Your task to perform on an android device: What's on the menu at Starbucks? Image 0: 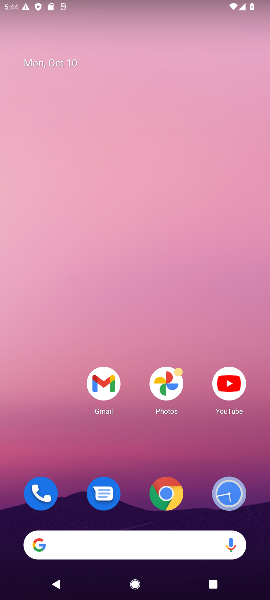
Step 0: drag from (122, 430) to (92, 96)
Your task to perform on an android device: What's on the menu at Starbucks? Image 1: 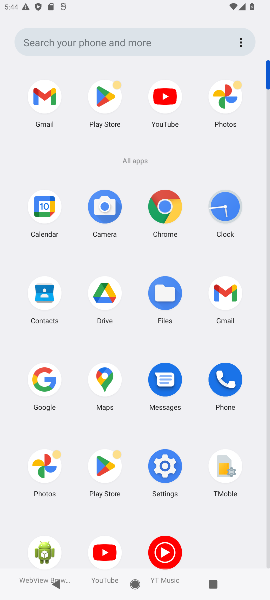
Step 1: click (104, 50)
Your task to perform on an android device: What's on the menu at Starbucks? Image 2: 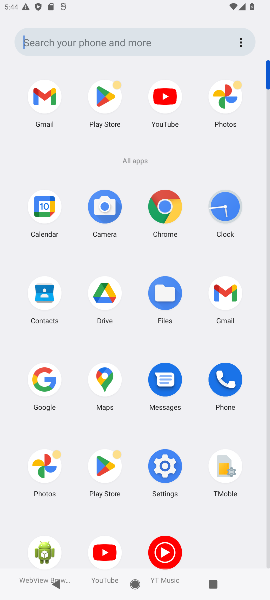
Step 2: click (104, 50)
Your task to perform on an android device: What's on the menu at Starbucks? Image 3: 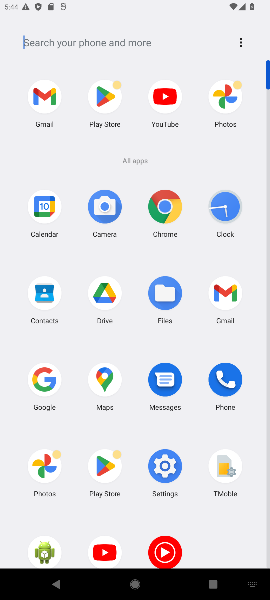
Step 3: type "What's on the menu at Starbucks?"
Your task to perform on an android device: What's on the menu at Starbucks? Image 4: 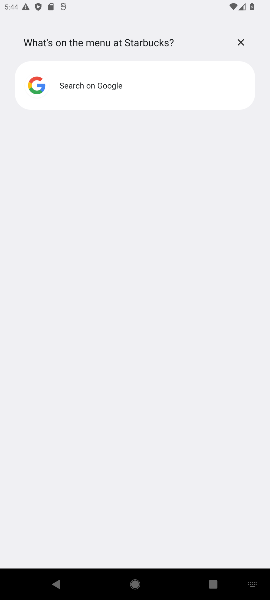
Step 4: click (77, 80)
Your task to perform on an android device: What's on the menu at Starbucks? Image 5: 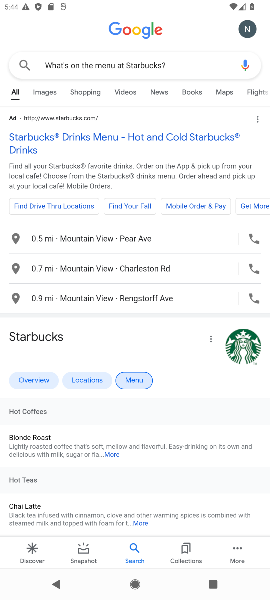
Step 5: drag from (199, 431) to (221, 322)
Your task to perform on an android device: What's on the menu at Starbucks? Image 6: 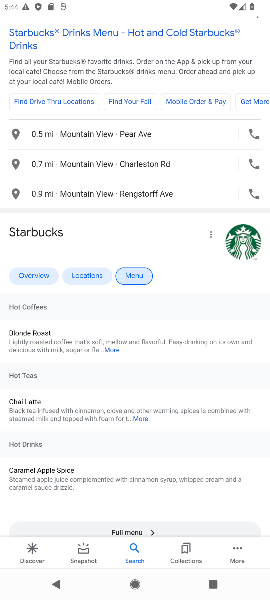
Step 6: click (133, 274)
Your task to perform on an android device: What's on the menu at Starbucks? Image 7: 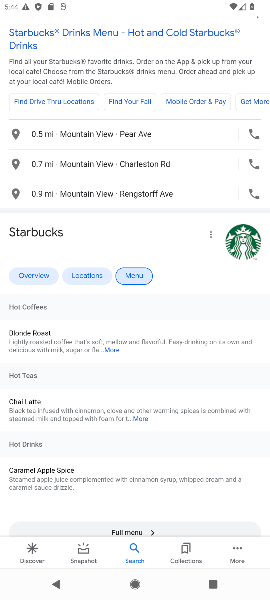
Step 7: click (127, 278)
Your task to perform on an android device: What's on the menu at Starbucks? Image 8: 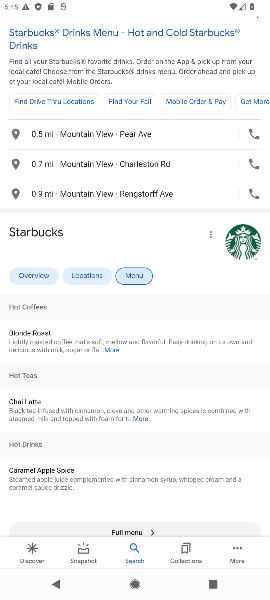
Step 8: click (140, 279)
Your task to perform on an android device: What's on the menu at Starbucks? Image 9: 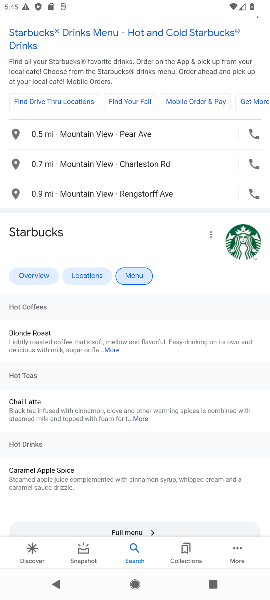
Step 9: click (140, 279)
Your task to perform on an android device: What's on the menu at Starbucks? Image 10: 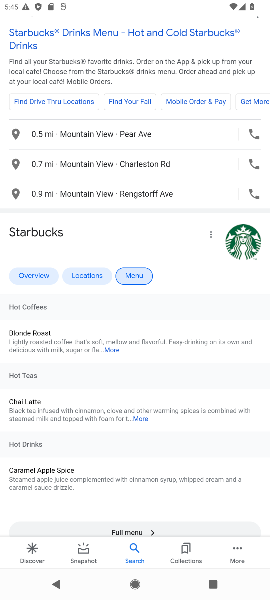
Step 10: task complete